Your task to perform on an android device: Open Chrome and go to settings Image 0: 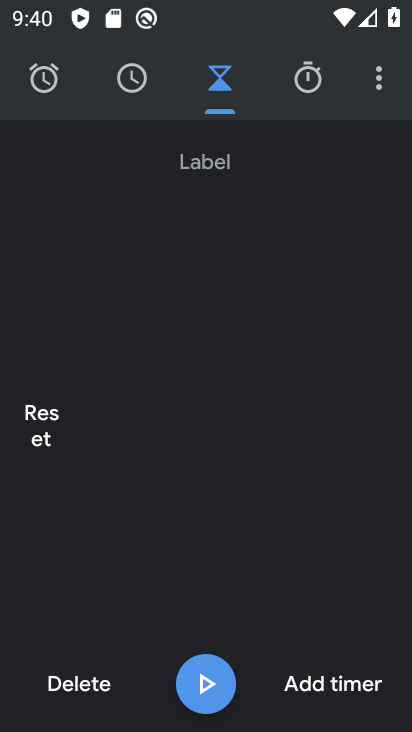
Step 0: press home button
Your task to perform on an android device: Open Chrome and go to settings Image 1: 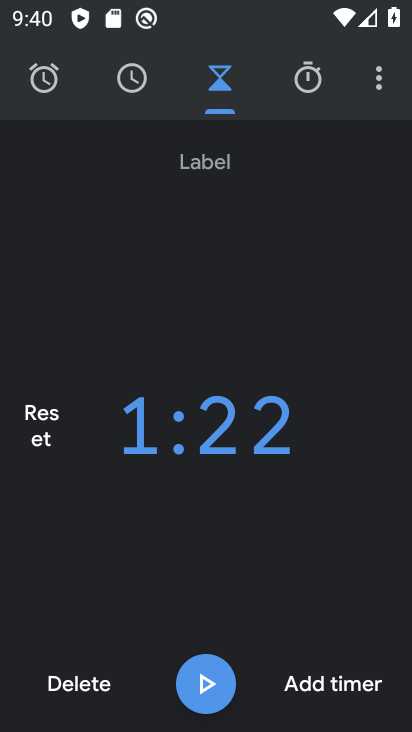
Step 1: press home button
Your task to perform on an android device: Open Chrome and go to settings Image 2: 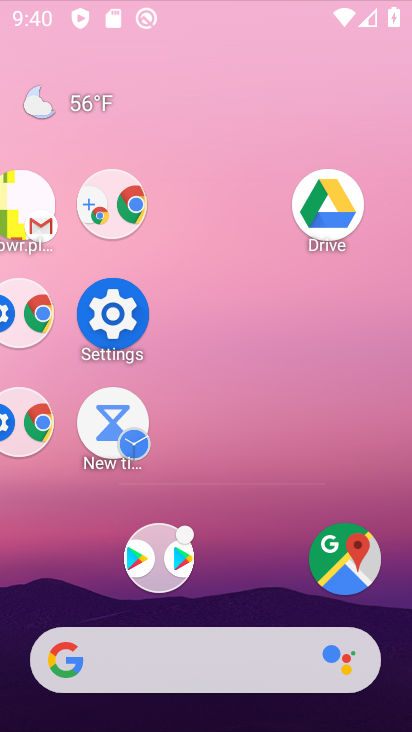
Step 2: press home button
Your task to perform on an android device: Open Chrome and go to settings Image 3: 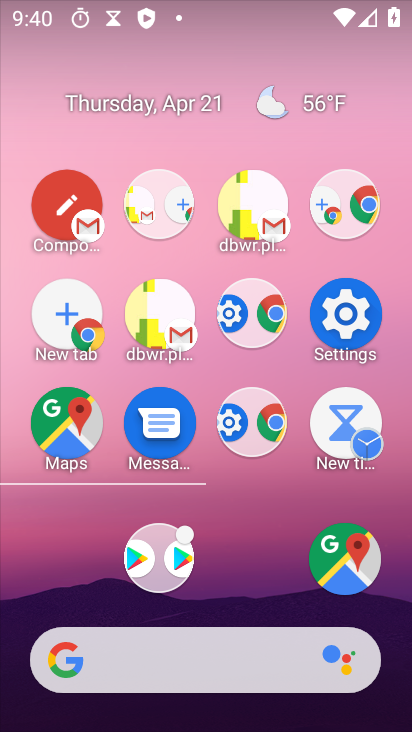
Step 3: press home button
Your task to perform on an android device: Open Chrome and go to settings Image 4: 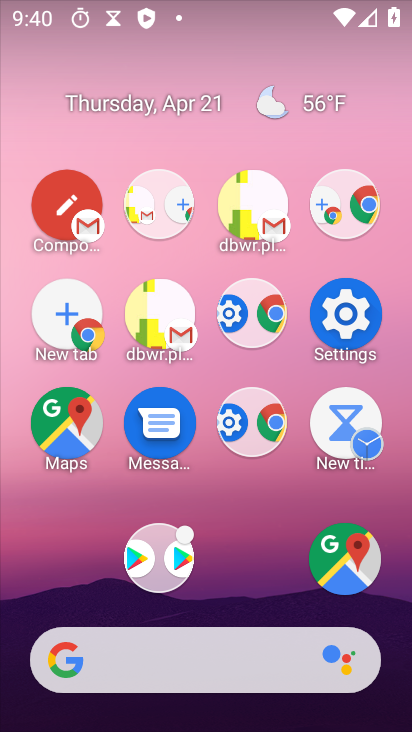
Step 4: press home button
Your task to perform on an android device: Open Chrome and go to settings Image 5: 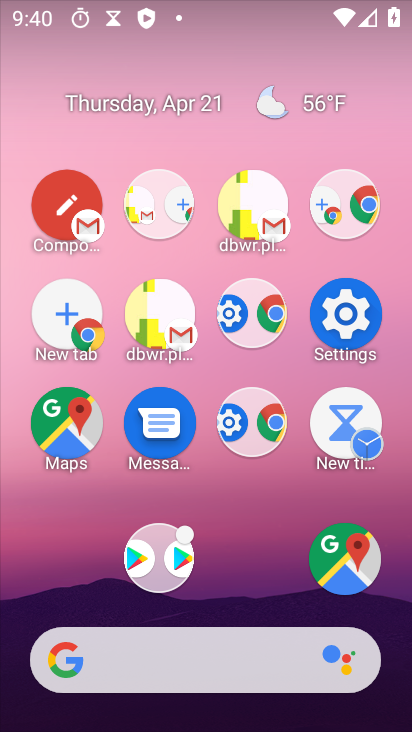
Step 5: drag from (235, 437) to (166, 113)
Your task to perform on an android device: Open Chrome and go to settings Image 6: 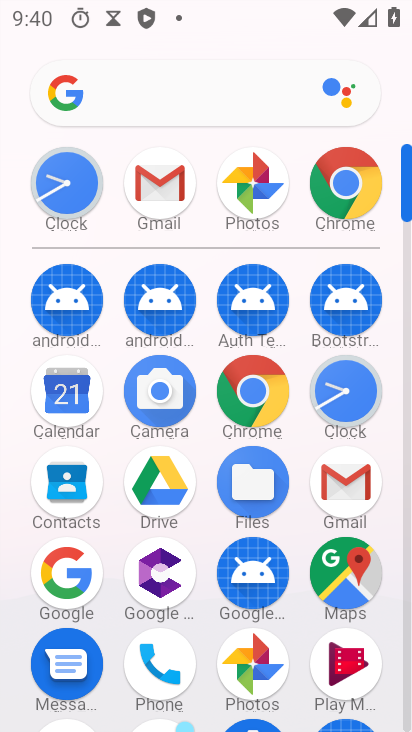
Step 6: click (340, 180)
Your task to perform on an android device: Open Chrome and go to settings Image 7: 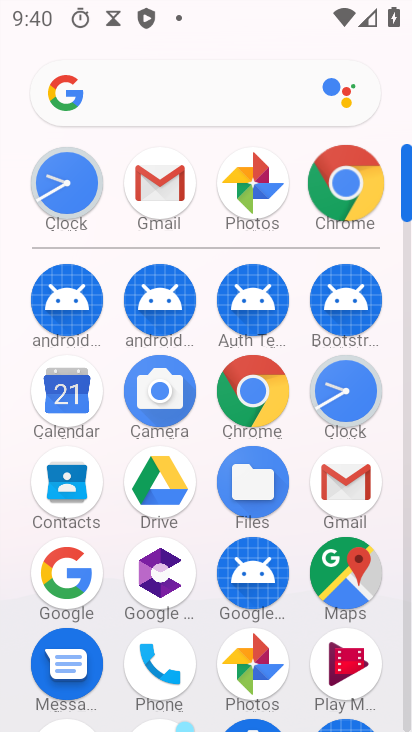
Step 7: click (340, 180)
Your task to perform on an android device: Open Chrome and go to settings Image 8: 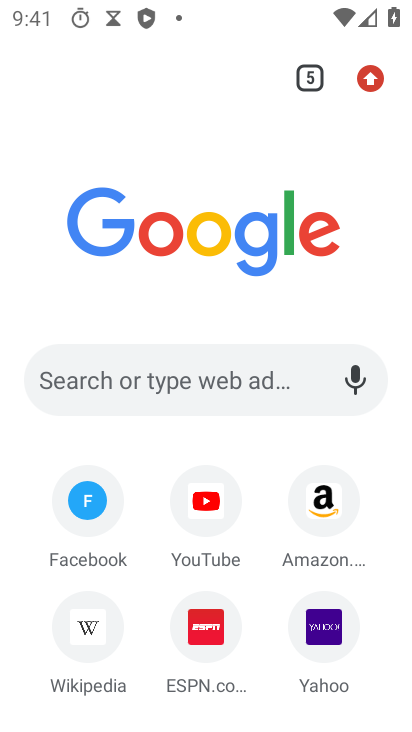
Step 8: drag from (369, 77) to (244, 221)
Your task to perform on an android device: Open Chrome and go to settings Image 9: 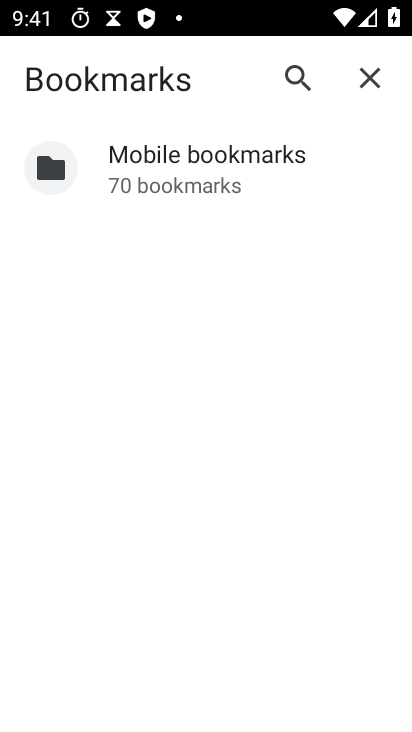
Step 9: click (363, 74)
Your task to perform on an android device: Open Chrome and go to settings Image 10: 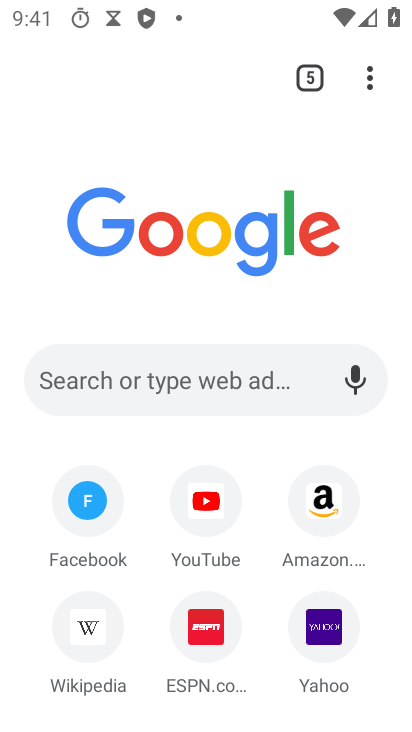
Step 10: task complete